Your task to perform on an android device: toggle sleep mode Image 0: 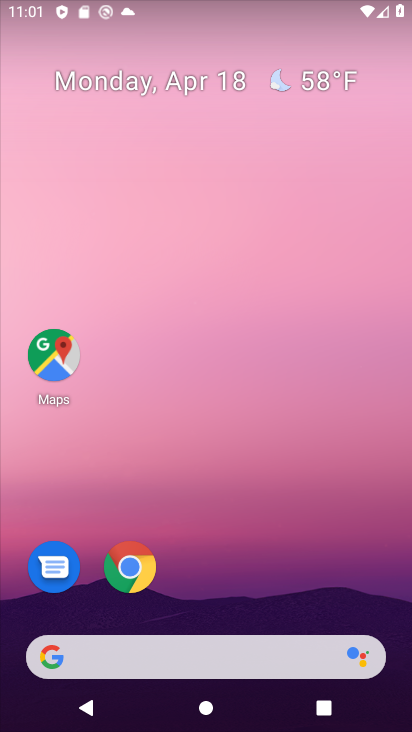
Step 0: drag from (388, 574) to (319, 139)
Your task to perform on an android device: toggle sleep mode Image 1: 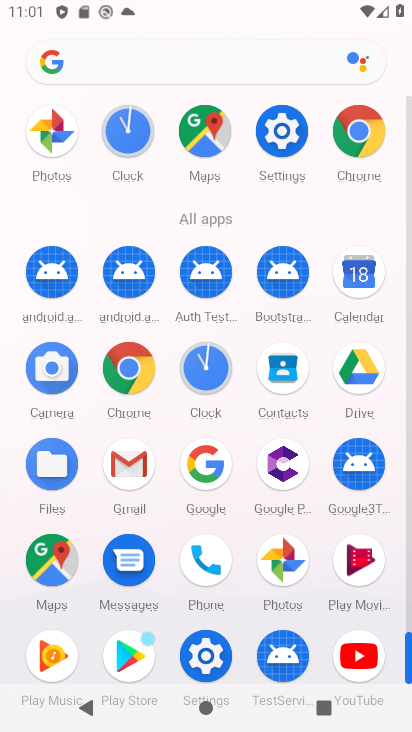
Step 1: click (206, 658)
Your task to perform on an android device: toggle sleep mode Image 2: 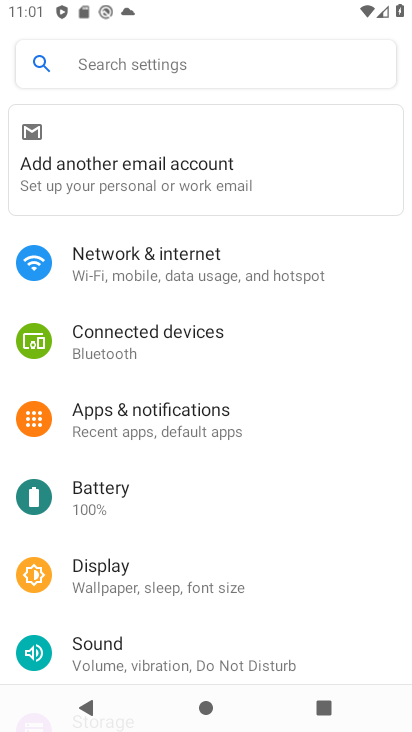
Step 2: click (110, 585)
Your task to perform on an android device: toggle sleep mode Image 3: 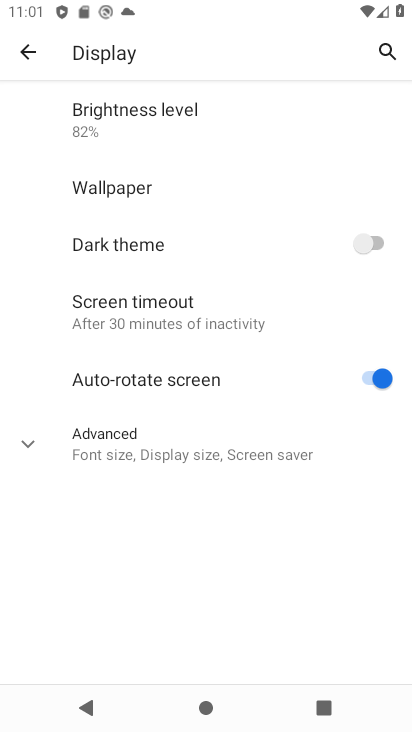
Step 3: click (23, 439)
Your task to perform on an android device: toggle sleep mode Image 4: 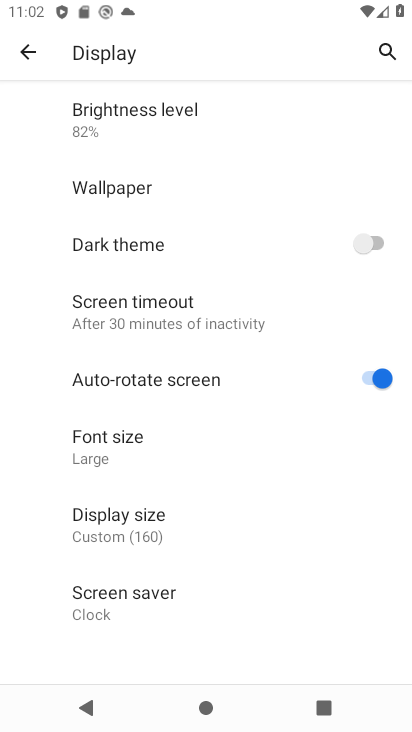
Step 4: task complete